Your task to perform on an android device: Search for vegetarian restaurants on Maps Image 0: 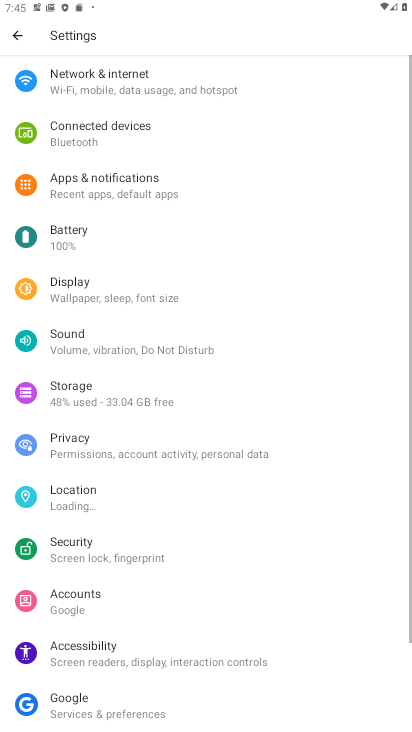
Step 0: press home button
Your task to perform on an android device: Search for vegetarian restaurants on Maps Image 1: 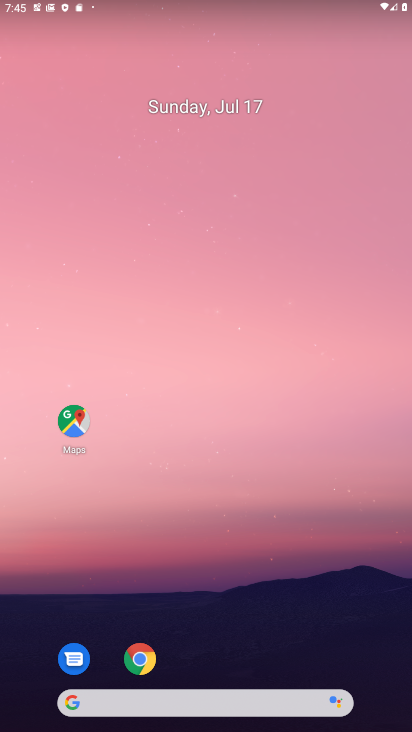
Step 1: click (48, 425)
Your task to perform on an android device: Search for vegetarian restaurants on Maps Image 2: 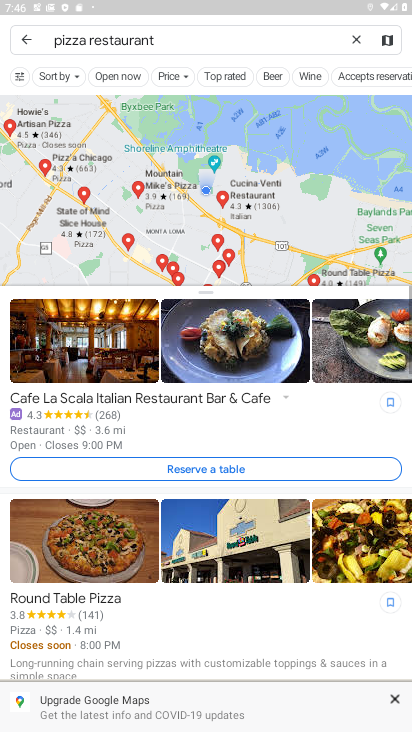
Step 2: click (355, 36)
Your task to perform on an android device: Search for vegetarian restaurants on Maps Image 3: 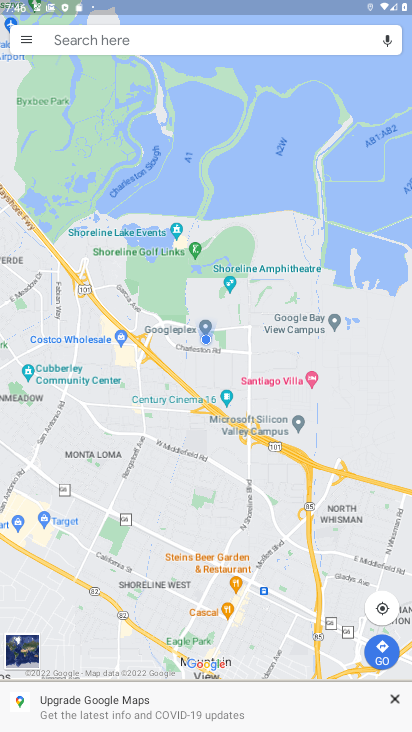
Step 3: click (283, 40)
Your task to perform on an android device: Search for vegetarian restaurants on Maps Image 4: 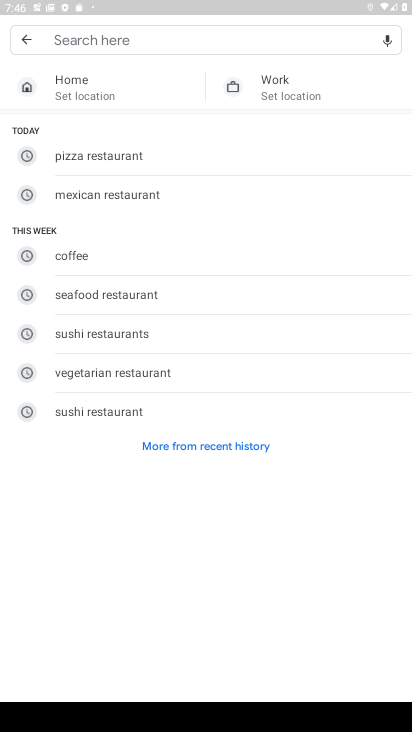
Step 4: click (176, 379)
Your task to perform on an android device: Search for vegetarian restaurants on Maps Image 5: 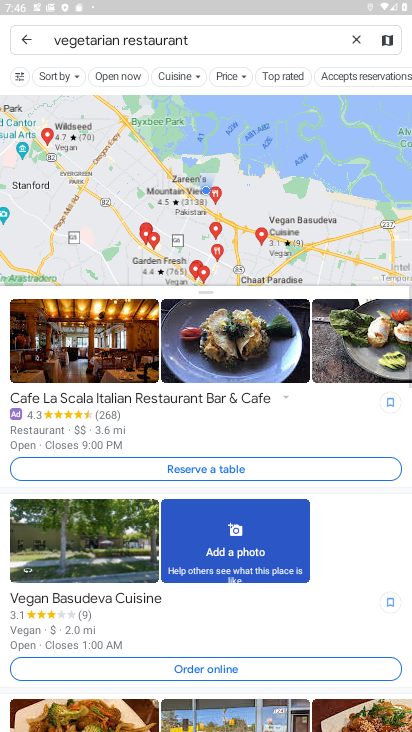
Step 5: task complete